Your task to perform on an android device: Open the calendar app, open the side menu, and click the "Day" option Image 0: 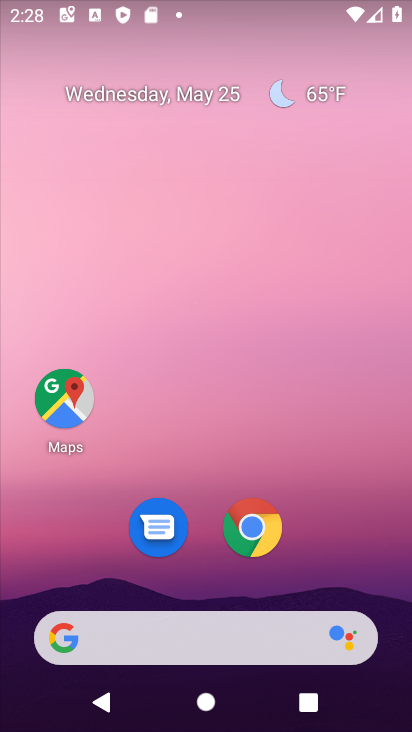
Step 0: drag from (306, 581) to (347, 20)
Your task to perform on an android device: Open the calendar app, open the side menu, and click the "Day" option Image 1: 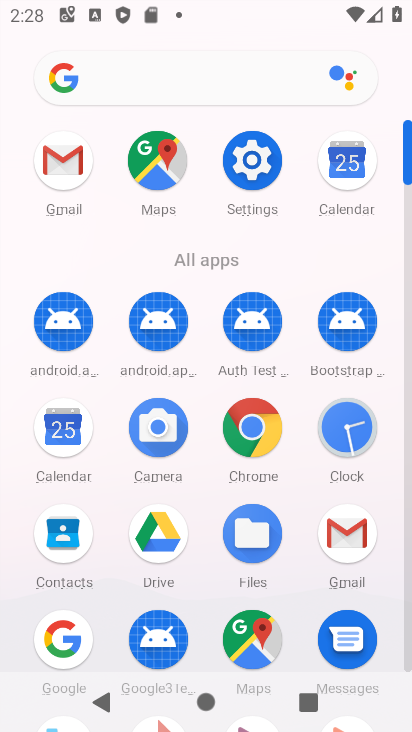
Step 1: click (69, 439)
Your task to perform on an android device: Open the calendar app, open the side menu, and click the "Day" option Image 2: 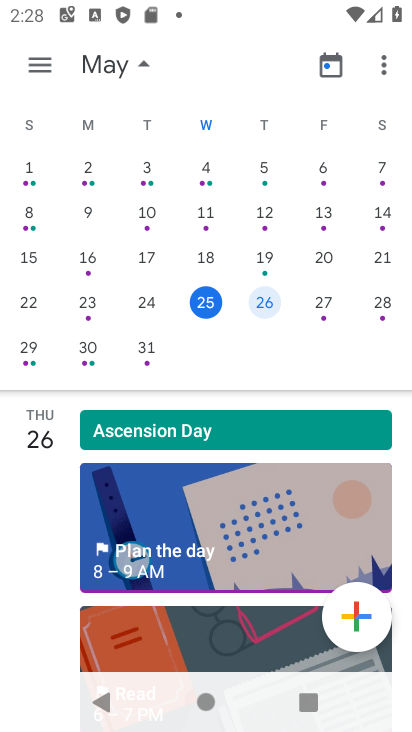
Step 2: click (44, 66)
Your task to perform on an android device: Open the calendar app, open the side menu, and click the "Day" option Image 3: 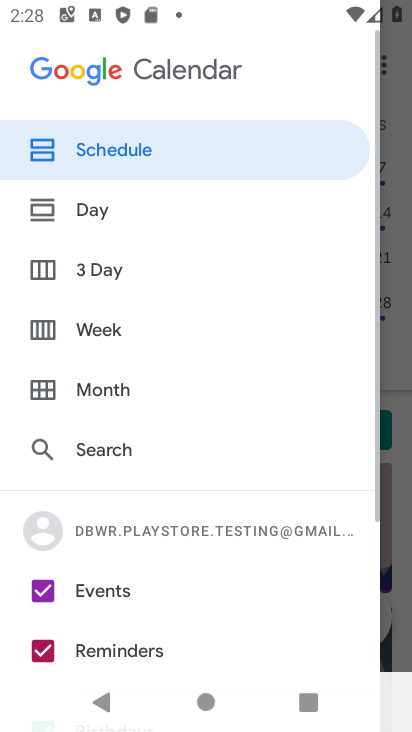
Step 3: click (94, 204)
Your task to perform on an android device: Open the calendar app, open the side menu, and click the "Day" option Image 4: 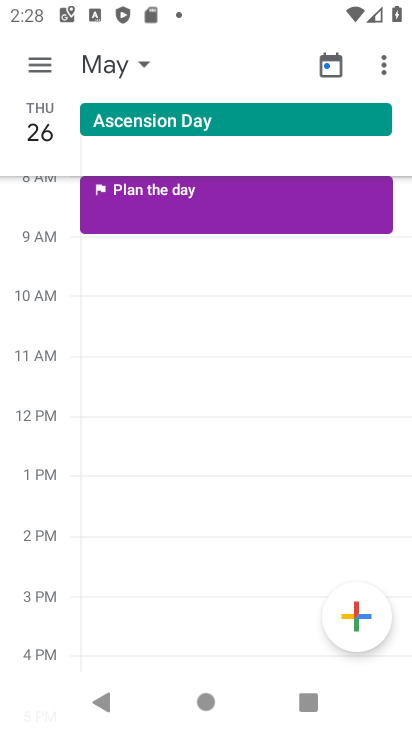
Step 4: task complete